Your task to perform on an android device: turn off improve location accuracy Image 0: 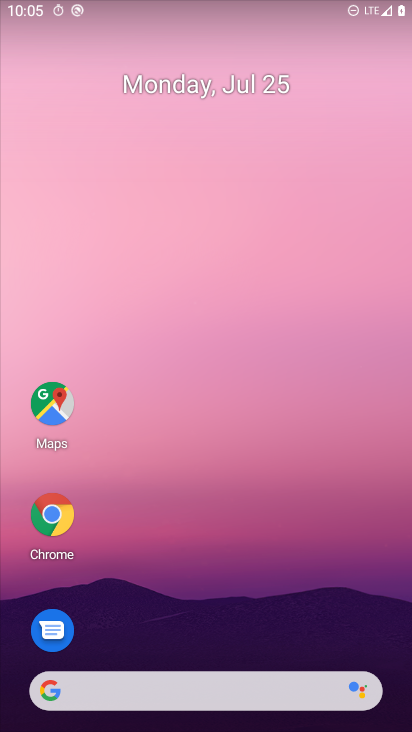
Step 0: drag from (83, 578) to (322, 8)
Your task to perform on an android device: turn off improve location accuracy Image 1: 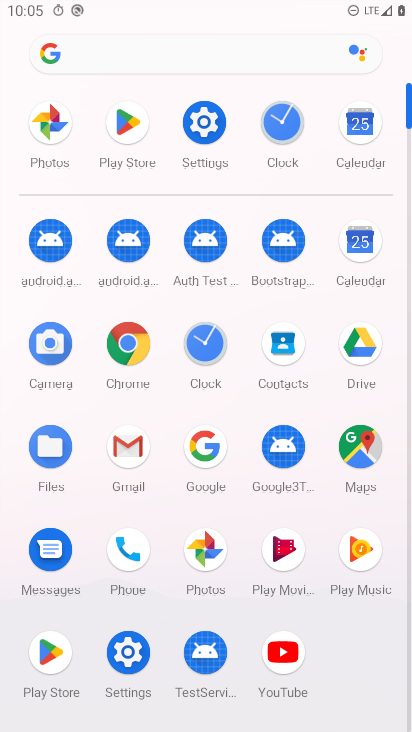
Step 1: click (138, 658)
Your task to perform on an android device: turn off improve location accuracy Image 2: 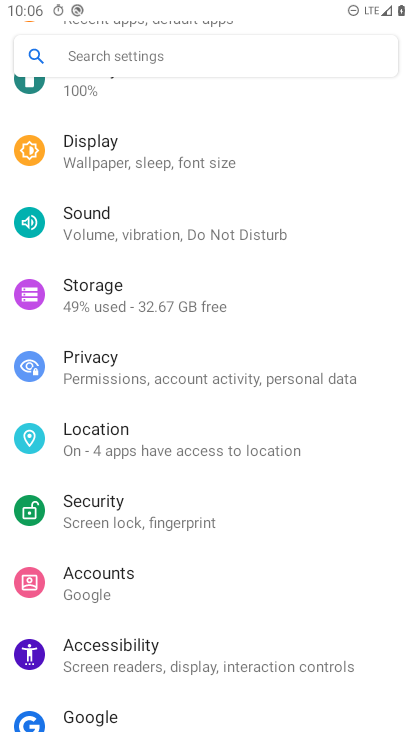
Step 2: click (86, 445)
Your task to perform on an android device: turn off improve location accuracy Image 3: 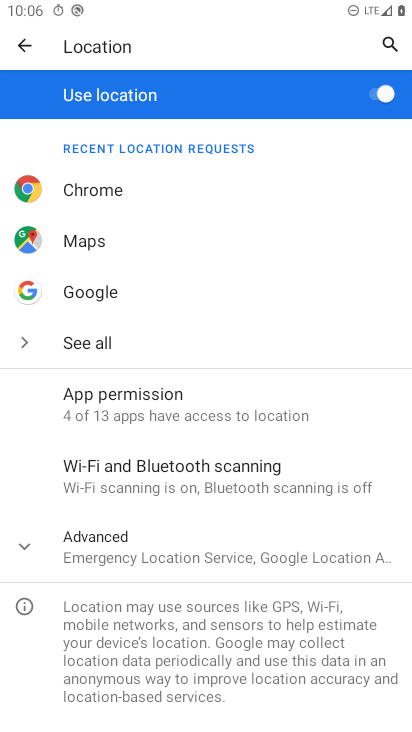
Step 3: click (160, 539)
Your task to perform on an android device: turn off improve location accuracy Image 4: 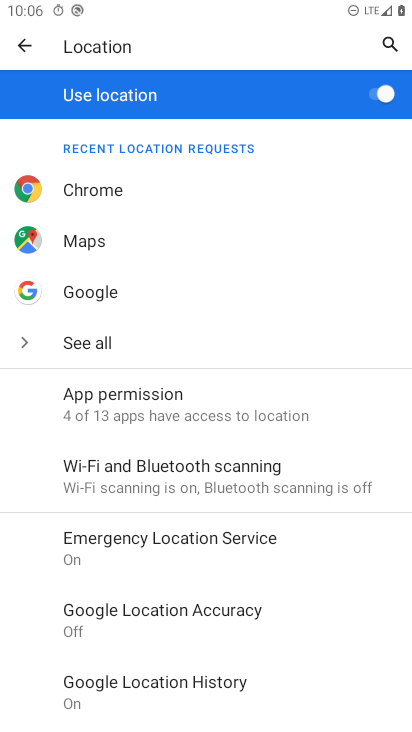
Step 4: task complete